Your task to perform on an android device: Find coffee shops on Maps Image 0: 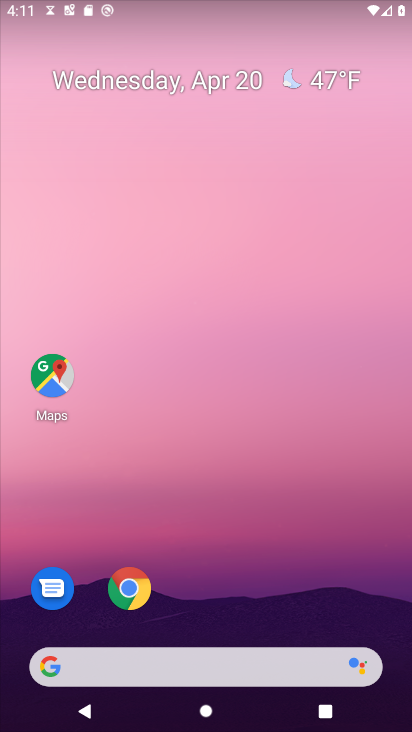
Step 0: drag from (317, 612) to (265, 2)
Your task to perform on an android device: Find coffee shops on Maps Image 1: 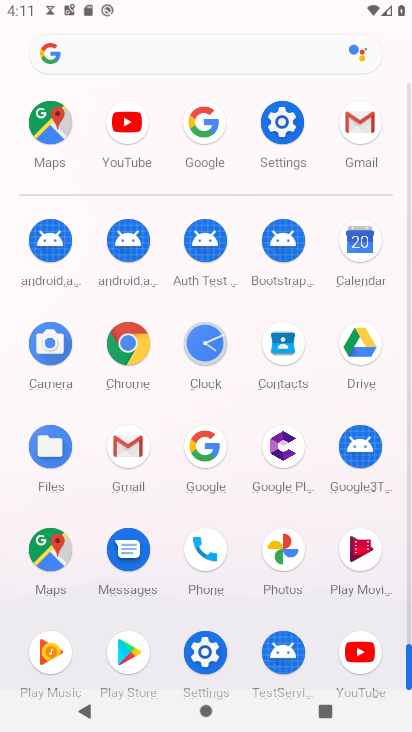
Step 1: click (37, 542)
Your task to perform on an android device: Find coffee shops on Maps Image 2: 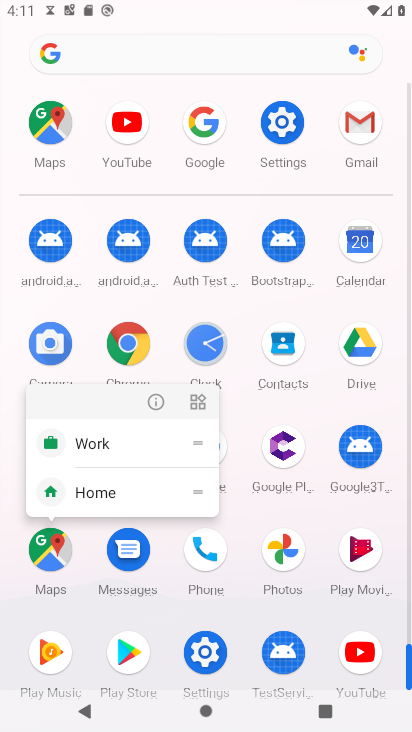
Step 2: click (38, 561)
Your task to perform on an android device: Find coffee shops on Maps Image 3: 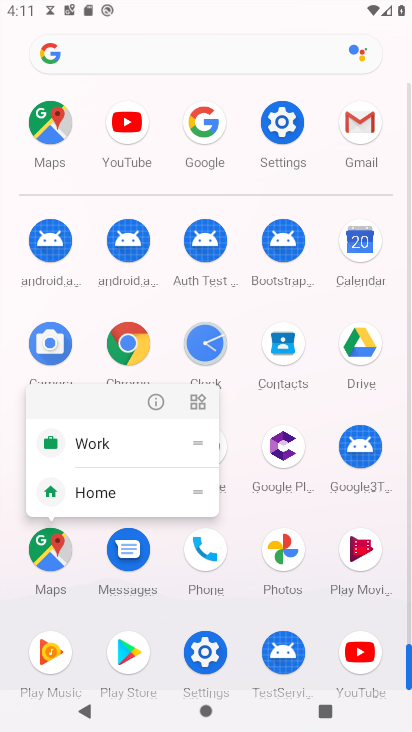
Step 3: click (38, 562)
Your task to perform on an android device: Find coffee shops on Maps Image 4: 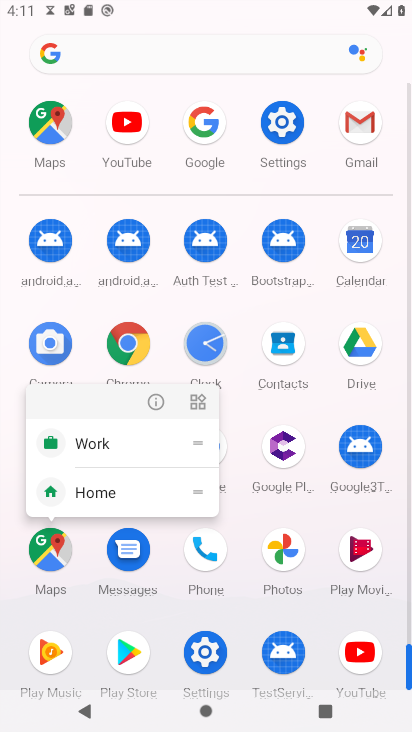
Step 4: click (39, 562)
Your task to perform on an android device: Find coffee shops on Maps Image 5: 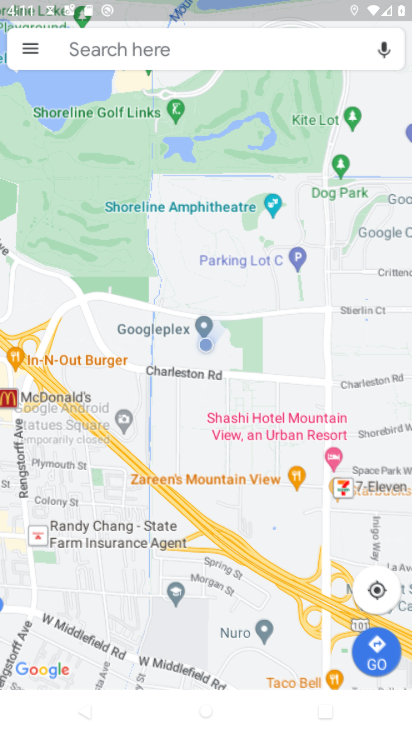
Step 5: click (39, 562)
Your task to perform on an android device: Find coffee shops on Maps Image 6: 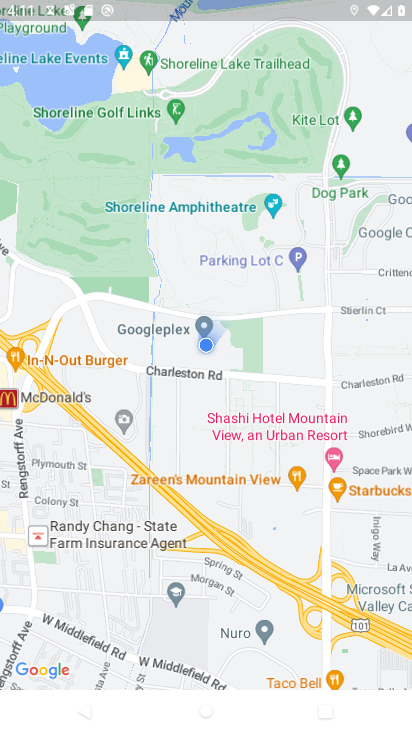
Step 6: click (138, 57)
Your task to perform on an android device: Find coffee shops on Maps Image 7: 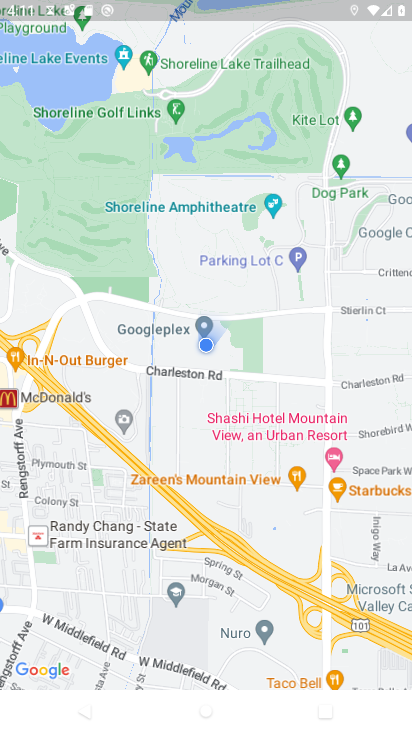
Step 7: click (149, 26)
Your task to perform on an android device: Find coffee shops on Maps Image 8: 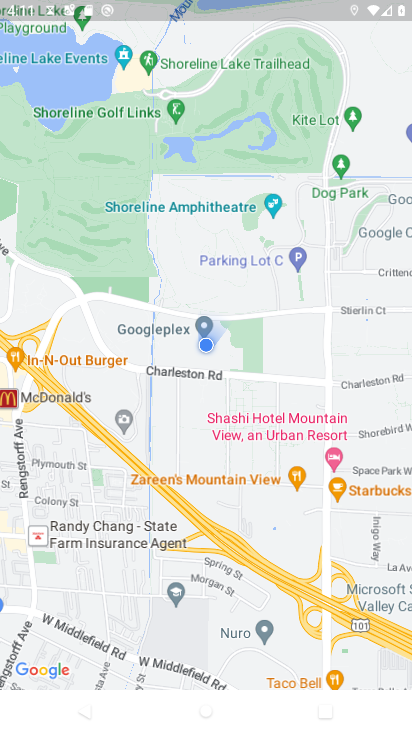
Step 8: click (132, 68)
Your task to perform on an android device: Find coffee shops on Maps Image 9: 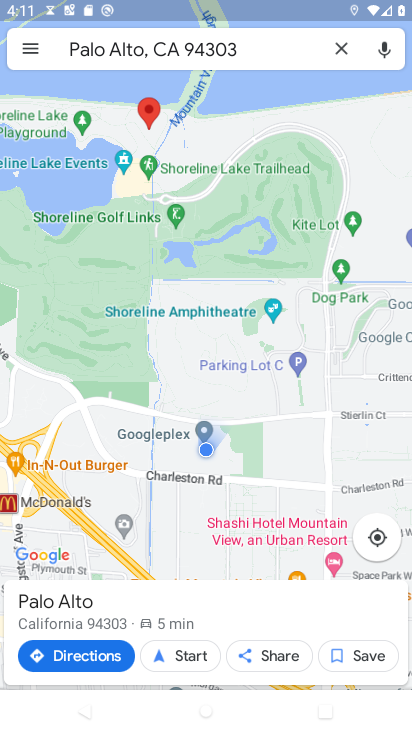
Step 9: click (100, 46)
Your task to perform on an android device: Find coffee shops on Maps Image 10: 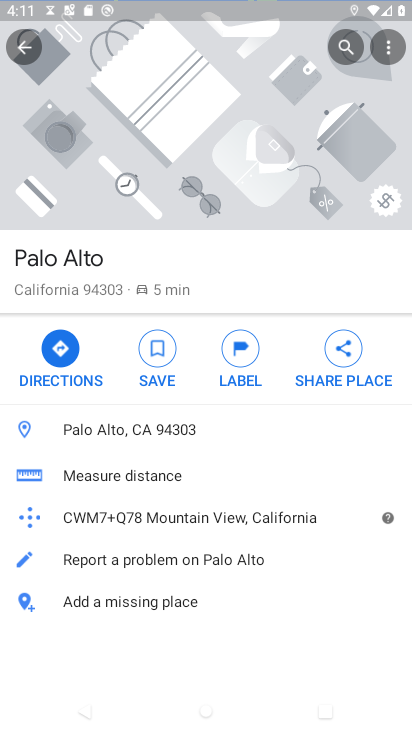
Step 10: press back button
Your task to perform on an android device: Find coffee shops on Maps Image 11: 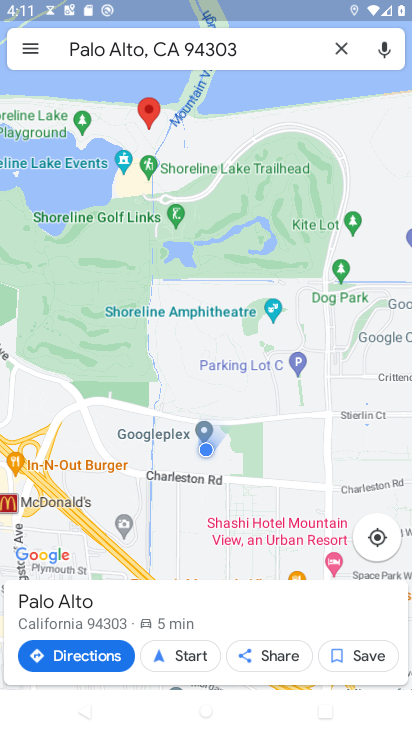
Step 11: click (342, 49)
Your task to perform on an android device: Find coffee shops on Maps Image 12: 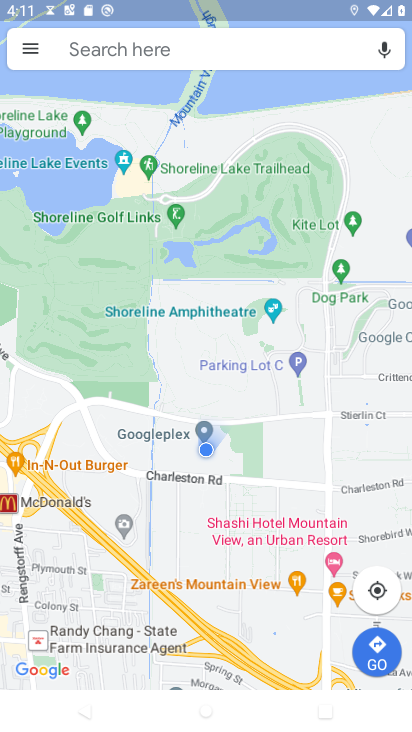
Step 12: click (109, 54)
Your task to perform on an android device: Find coffee shops on Maps Image 13: 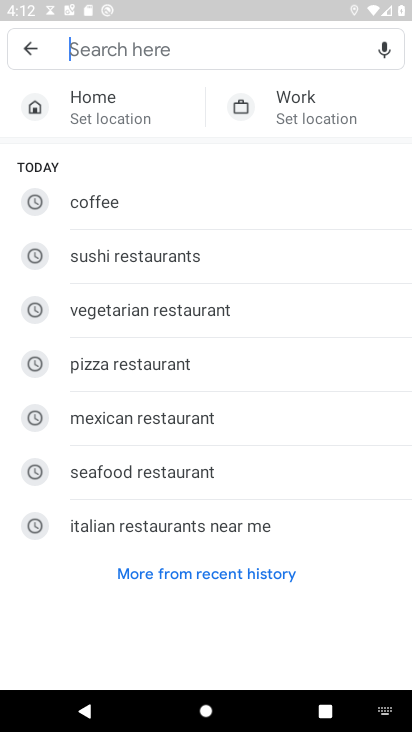
Step 13: type "coffee shops"
Your task to perform on an android device: Find coffee shops on Maps Image 14: 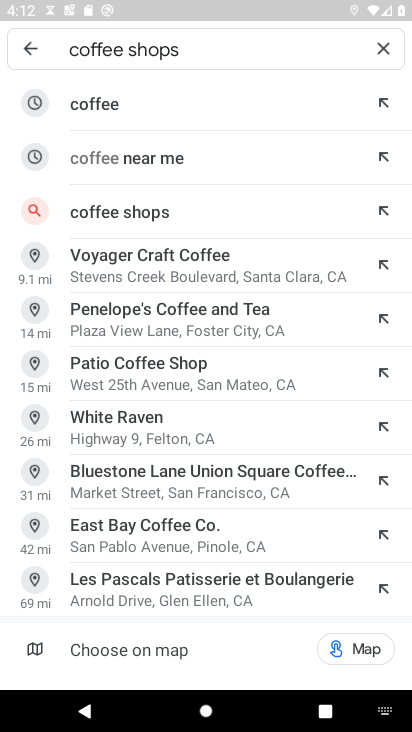
Step 14: click (119, 207)
Your task to perform on an android device: Find coffee shops on Maps Image 15: 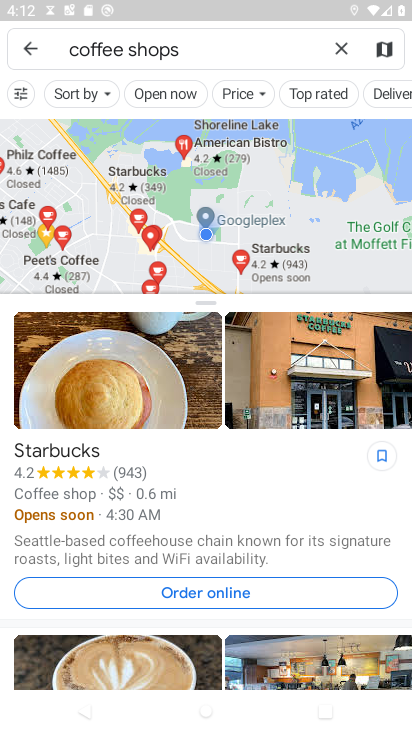
Step 15: task complete